Your task to perform on an android device: What's on my calendar today? Image 0: 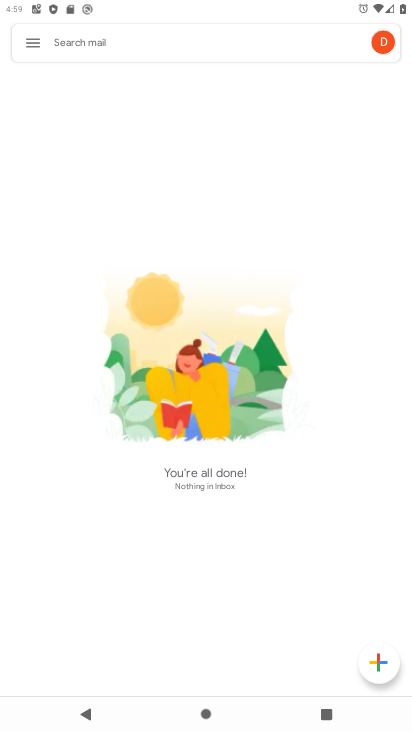
Step 0: press home button
Your task to perform on an android device: What's on my calendar today? Image 1: 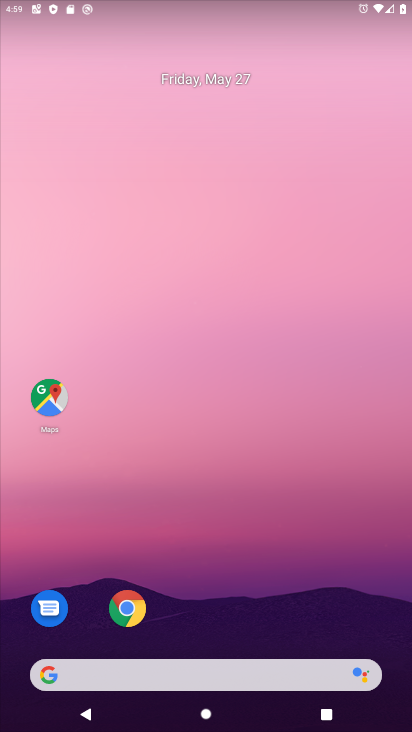
Step 1: drag from (196, 653) to (285, 113)
Your task to perform on an android device: What's on my calendar today? Image 2: 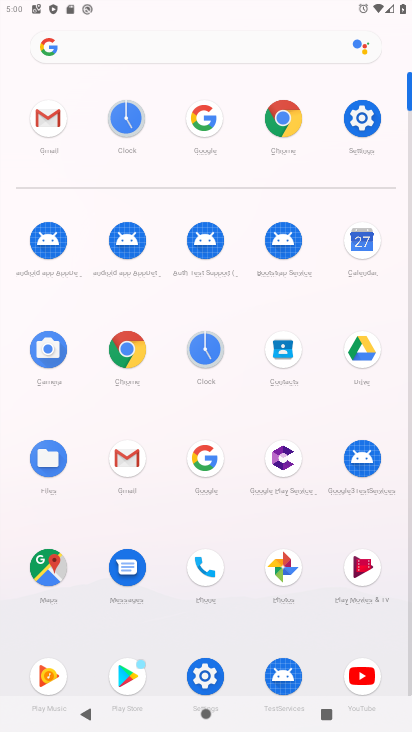
Step 2: click (363, 249)
Your task to perform on an android device: What's on my calendar today? Image 3: 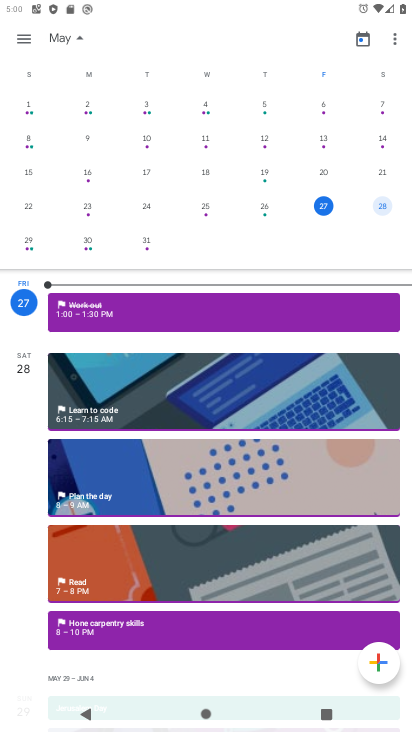
Step 3: click (156, 312)
Your task to perform on an android device: What's on my calendar today? Image 4: 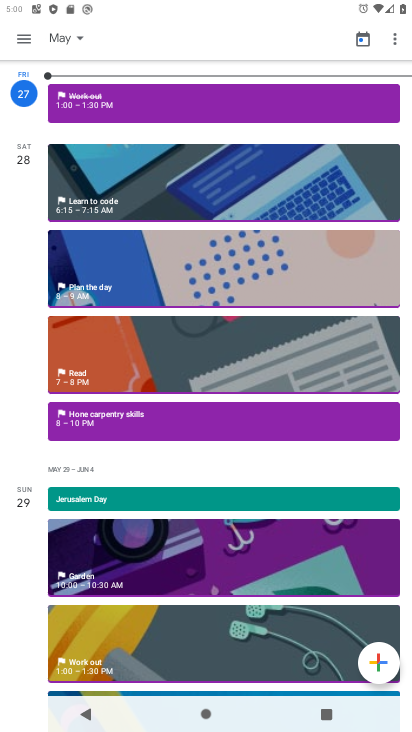
Step 4: task complete